Your task to perform on an android device: Open settings Image 0: 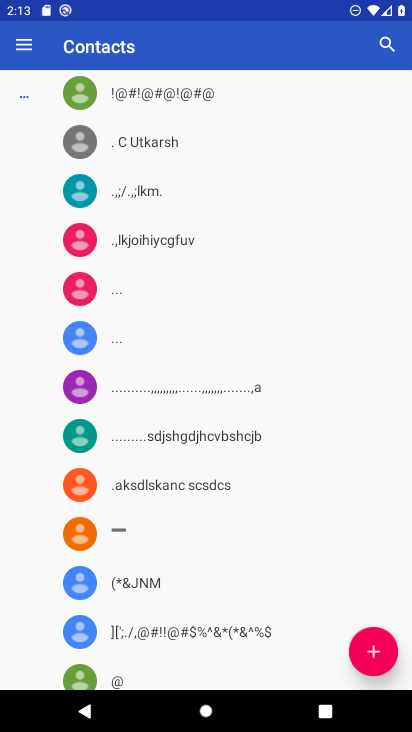
Step 0: press home button
Your task to perform on an android device: Open settings Image 1: 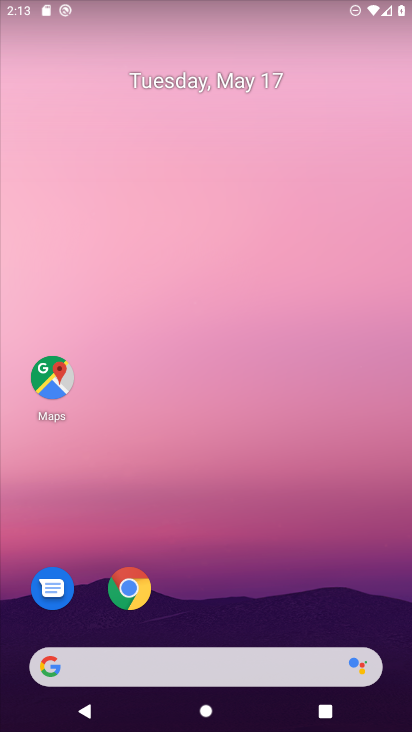
Step 1: drag from (159, 605) to (191, 92)
Your task to perform on an android device: Open settings Image 2: 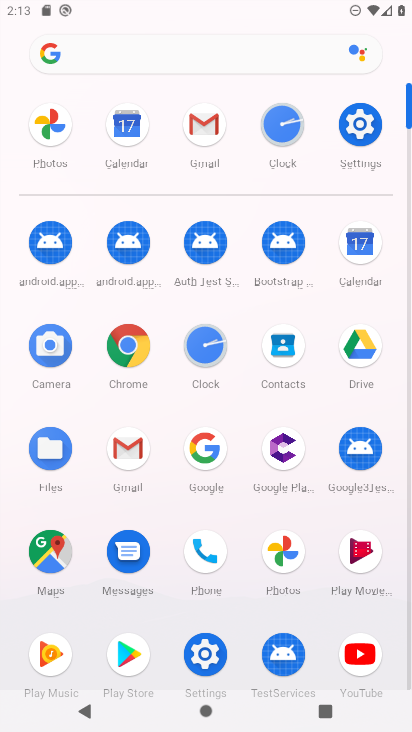
Step 2: click (363, 112)
Your task to perform on an android device: Open settings Image 3: 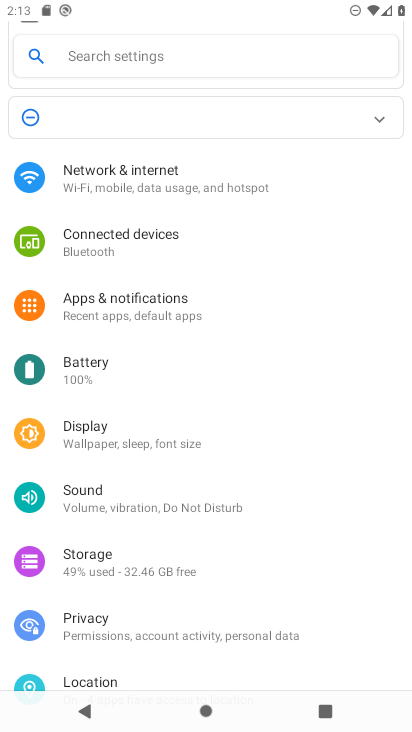
Step 3: task complete